Your task to perform on an android device: toggle improve location accuracy Image 0: 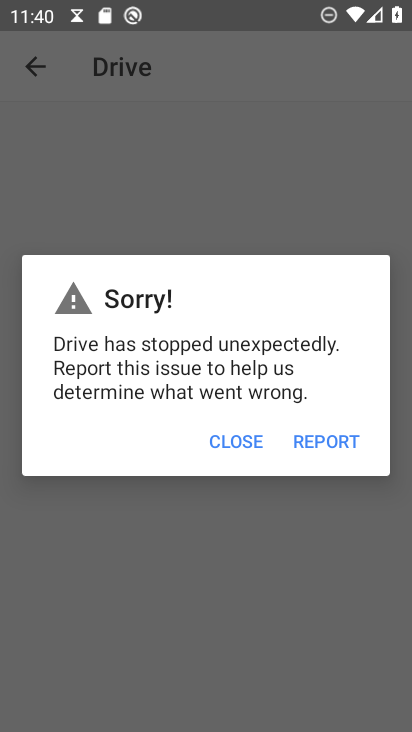
Step 0: press home button
Your task to perform on an android device: toggle improve location accuracy Image 1: 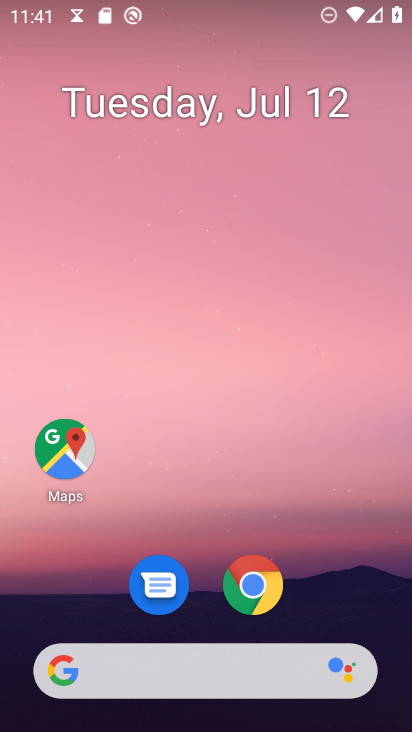
Step 1: drag from (175, 680) to (273, 140)
Your task to perform on an android device: toggle improve location accuracy Image 2: 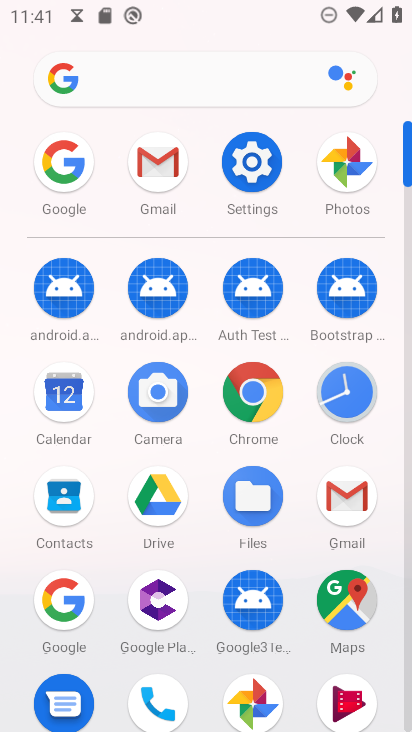
Step 2: click (250, 169)
Your task to perform on an android device: toggle improve location accuracy Image 3: 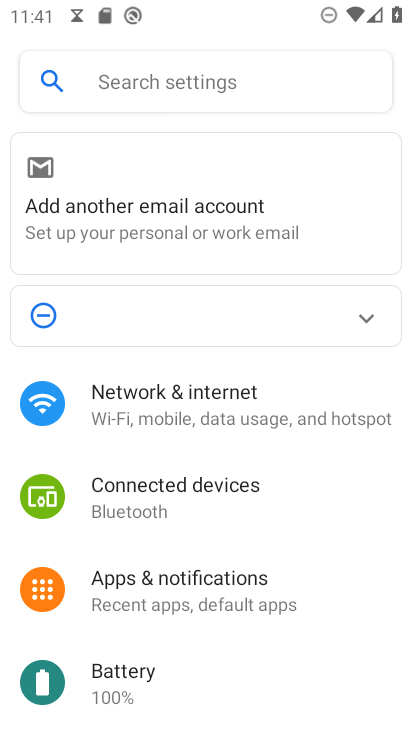
Step 3: drag from (207, 658) to (333, 89)
Your task to perform on an android device: toggle improve location accuracy Image 4: 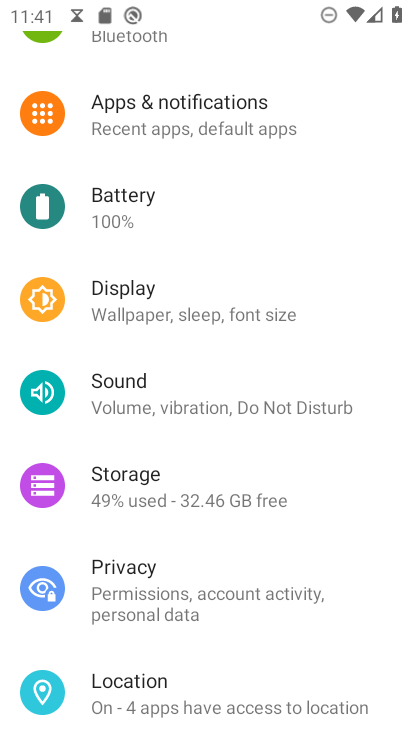
Step 4: drag from (197, 621) to (285, 309)
Your task to perform on an android device: toggle improve location accuracy Image 5: 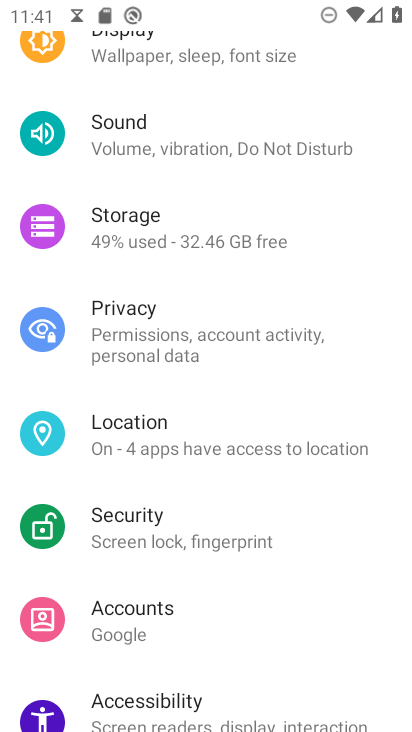
Step 5: click (188, 439)
Your task to perform on an android device: toggle improve location accuracy Image 6: 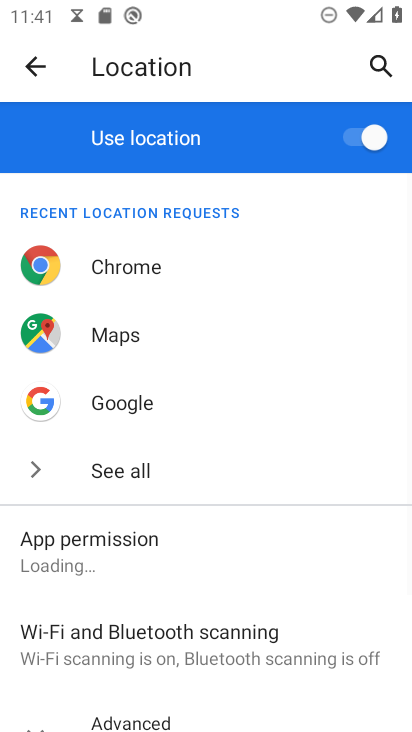
Step 6: drag from (143, 596) to (300, 116)
Your task to perform on an android device: toggle improve location accuracy Image 7: 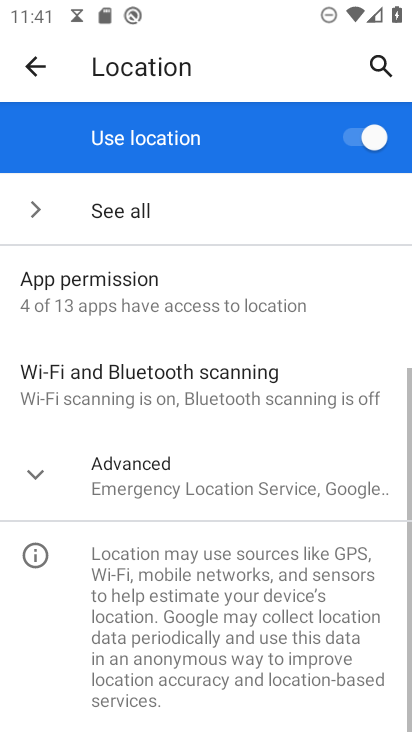
Step 7: click (147, 489)
Your task to perform on an android device: toggle improve location accuracy Image 8: 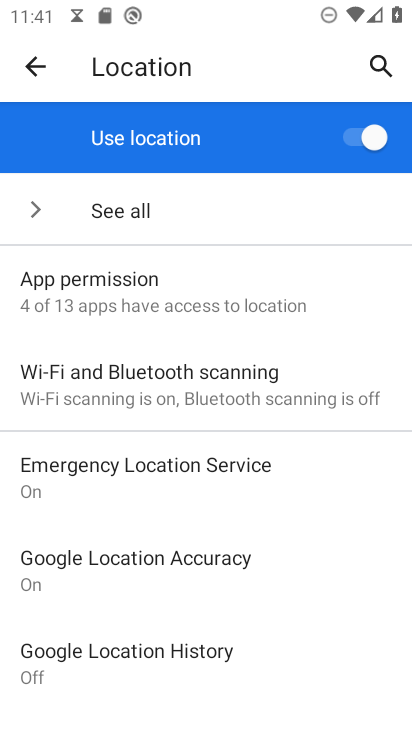
Step 8: click (134, 565)
Your task to perform on an android device: toggle improve location accuracy Image 9: 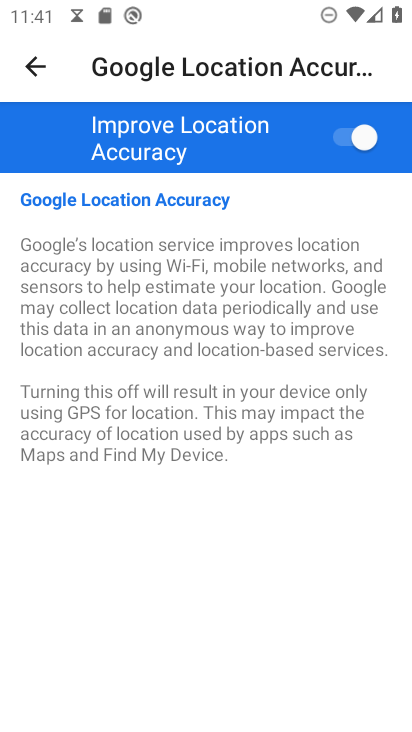
Step 9: click (336, 138)
Your task to perform on an android device: toggle improve location accuracy Image 10: 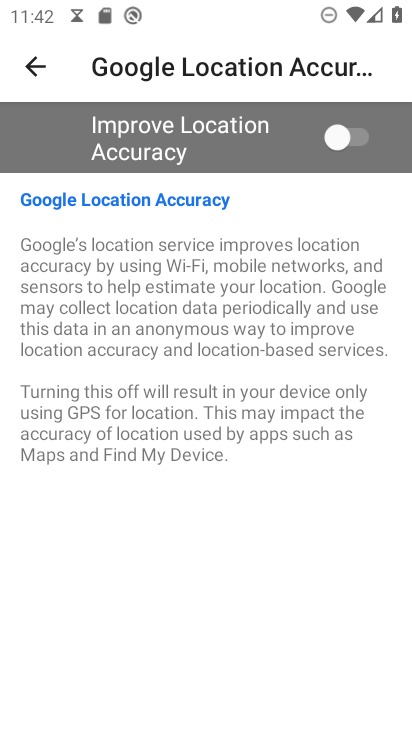
Step 10: task complete